Your task to perform on an android device: Open Reddit.com Image 0: 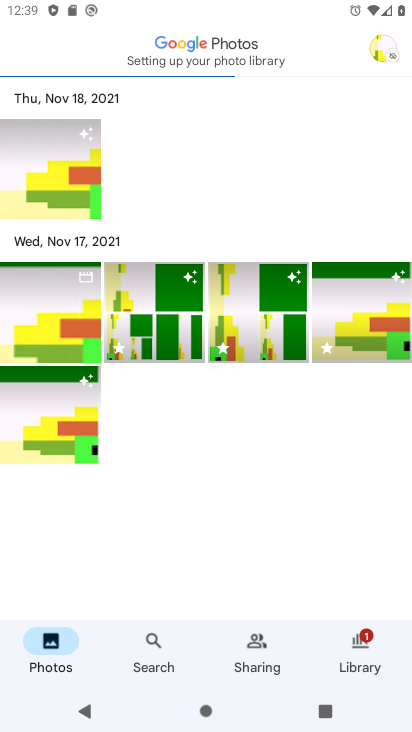
Step 0: press home button
Your task to perform on an android device: Open Reddit.com Image 1: 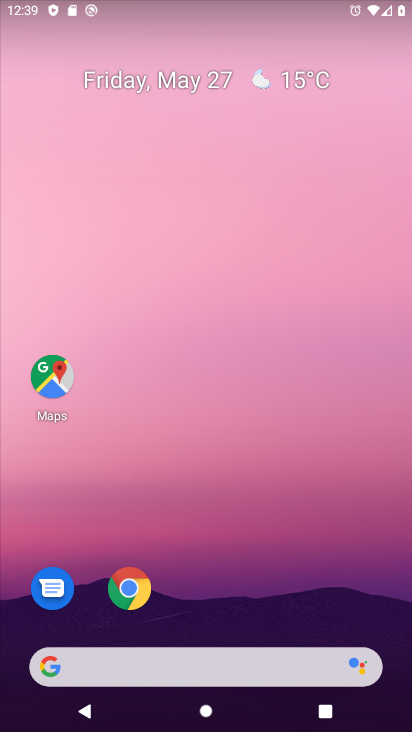
Step 1: drag from (378, 616) to (334, 91)
Your task to perform on an android device: Open Reddit.com Image 2: 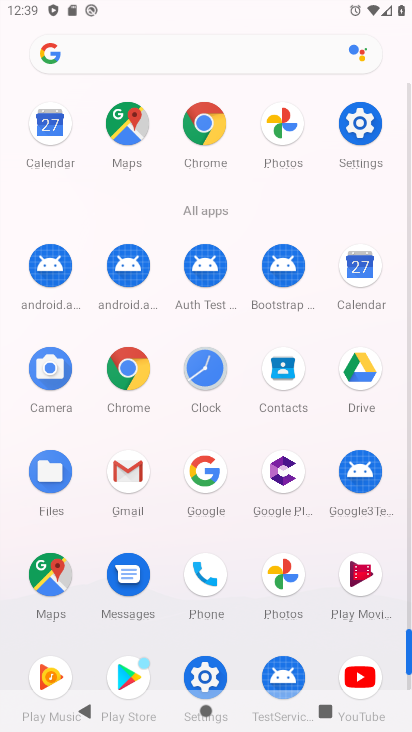
Step 2: click (407, 682)
Your task to perform on an android device: Open Reddit.com Image 3: 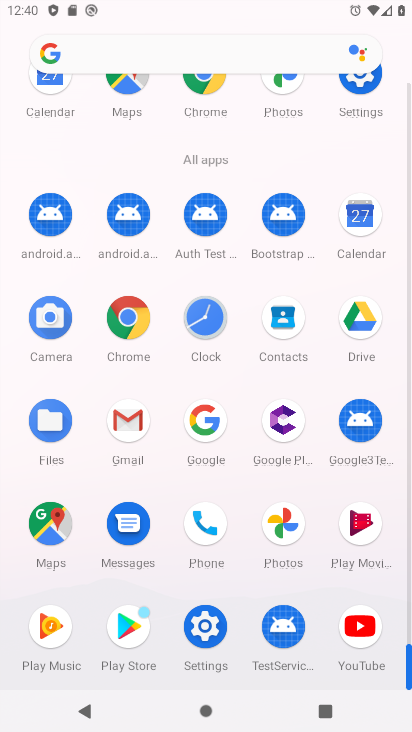
Step 3: click (132, 318)
Your task to perform on an android device: Open Reddit.com Image 4: 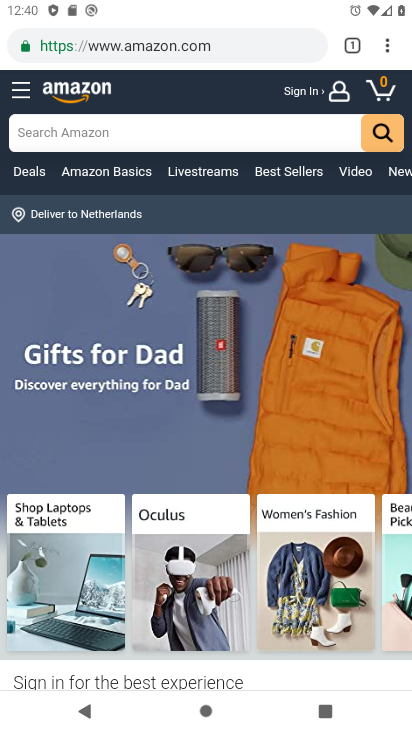
Step 4: click (266, 44)
Your task to perform on an android device: Open Reddit.com Image 5: 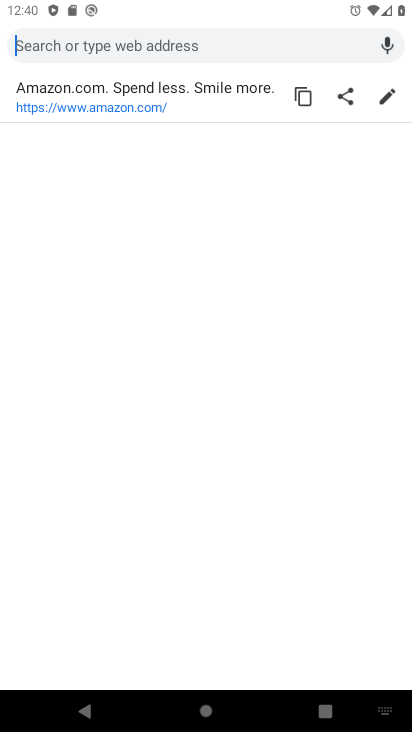
Step 5: type "reddit.com"
Your task to perform on an android device: Open Reddit.com Image 6: 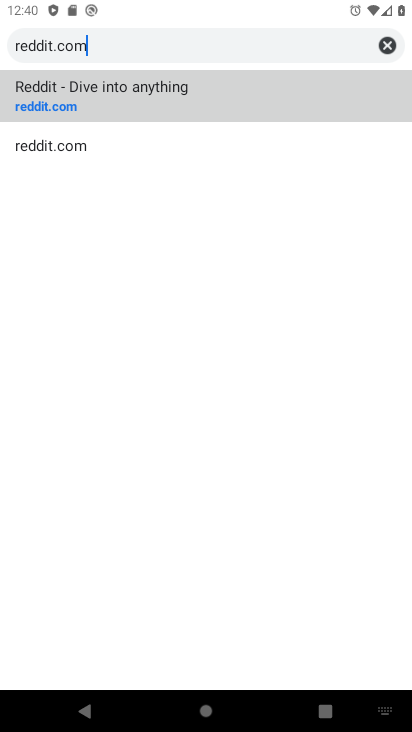
Step 6: click (81, 101)
Your task to perform on an android device: Open Reddit.com Image 7: 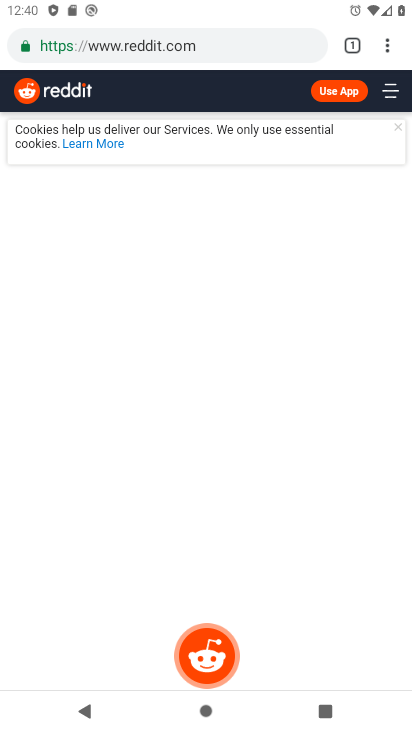
Step 7: task complete